Your task to perform on an android device: manage bookmarks in the chrome app Image 0: 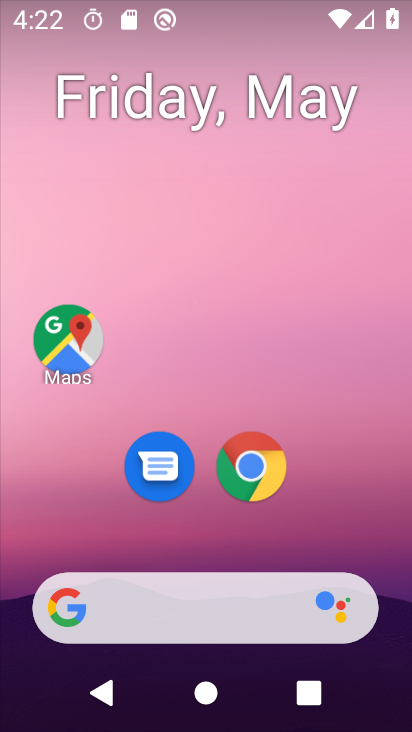
Step 0: drag from (393, 657) to (381, 236)
Your task to perform on an android device: manage bookmarks in the chrome app Image 1: 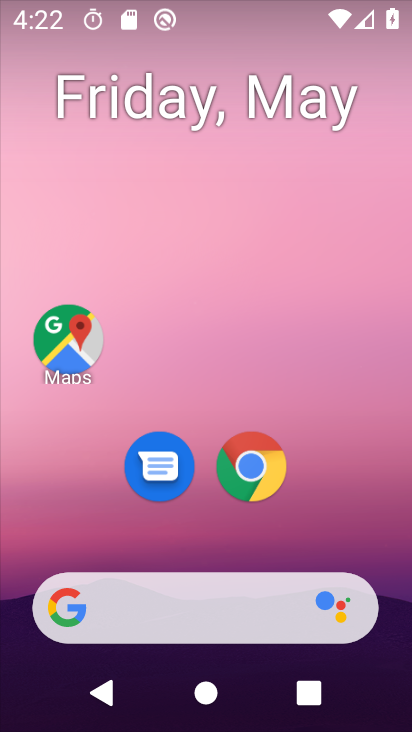
Step 1: click (357, 173)
Your task to perform on an android device: manage bookmarks in the chrome app Image 2: 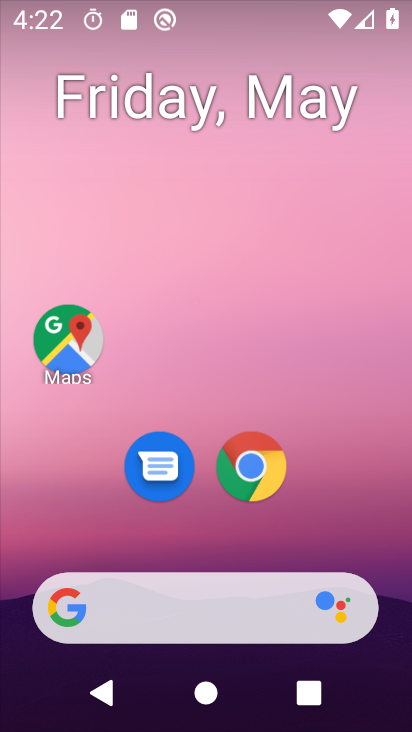
Step 2: click (264, 462)
Your task to perform on an android device: manage bookmarks in the chrome app Image 3: 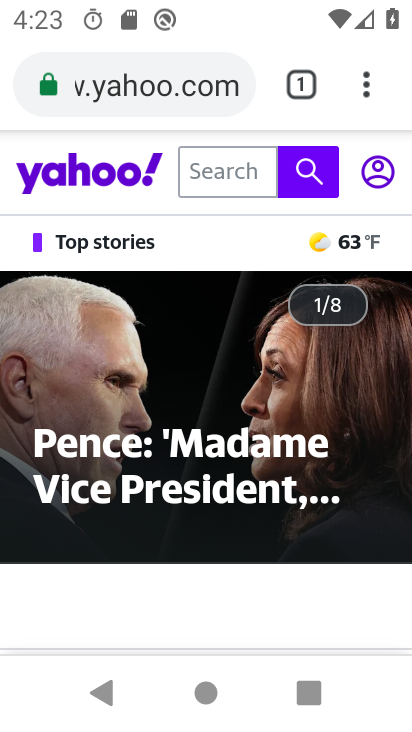
Step 3: click (366, 82)
Your task to perform on an android device: manage bookmarks in the chrome app Image 4: 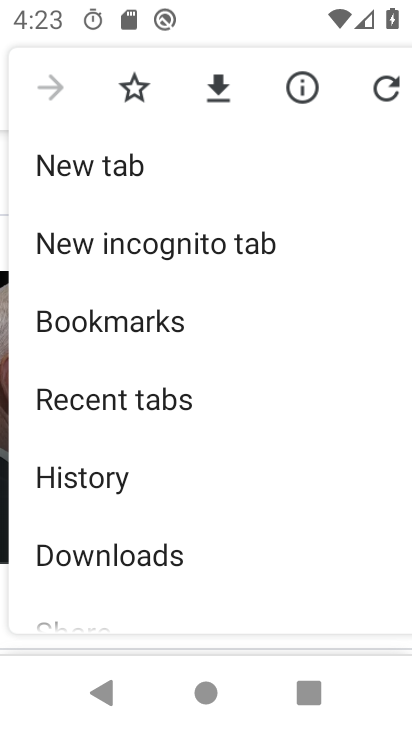
Step 4: click (278, 333)
Your task to perform on an android device: manage bookmarks in the chrome app Image 5: 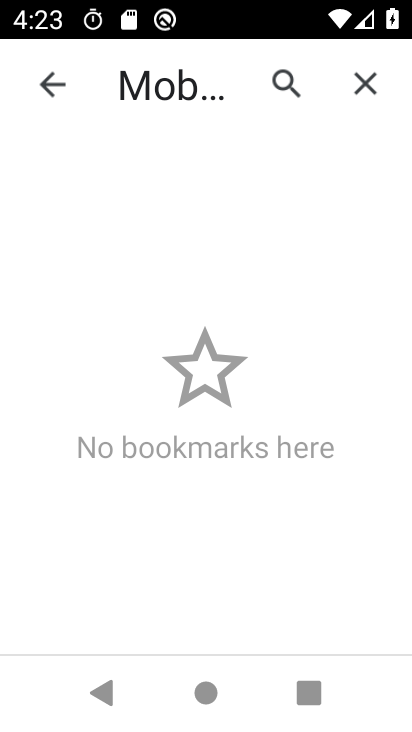
Step 5: click (361, 84)
Your task to perform on an android device: manage bookmarks in the chrome app Image 6: 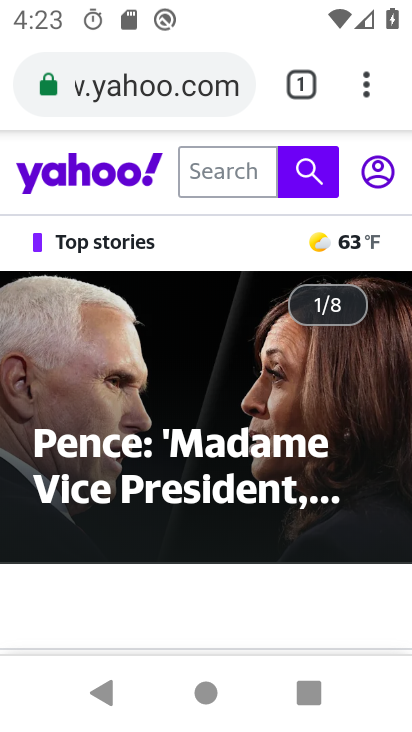
Step 6: click (360, 82)
Your task to perform on an android device: manage bookmarks in the chrome app Image 7: 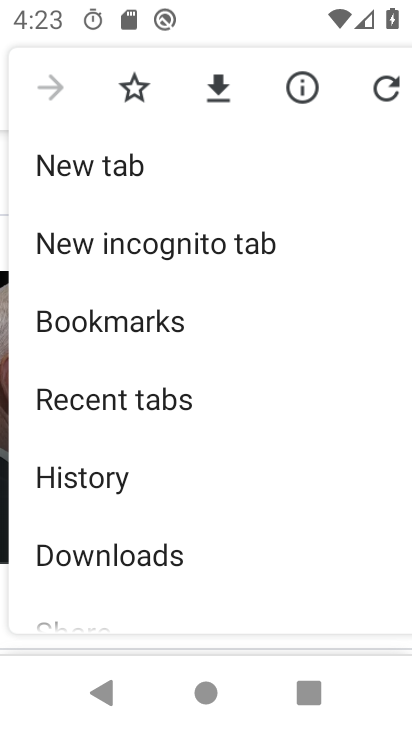
Step 7: click (133, 314)
Your task to perform on an android device: manage bookmarks in the chrome app Image 8: 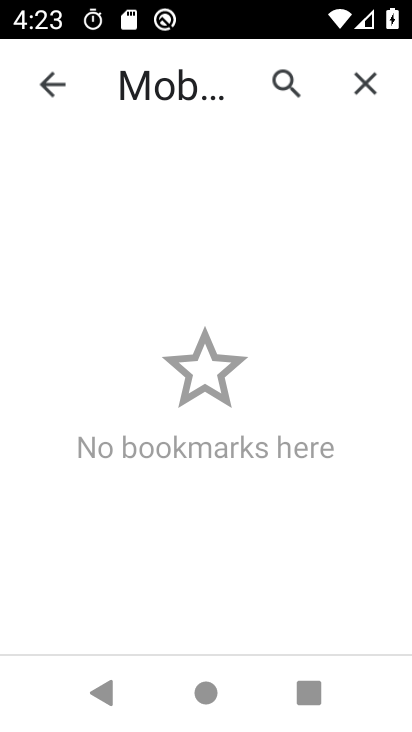
Step 8: click (43, 95)
Your task to perform on an android device: manage bookmarks in the chrome app Image 9: 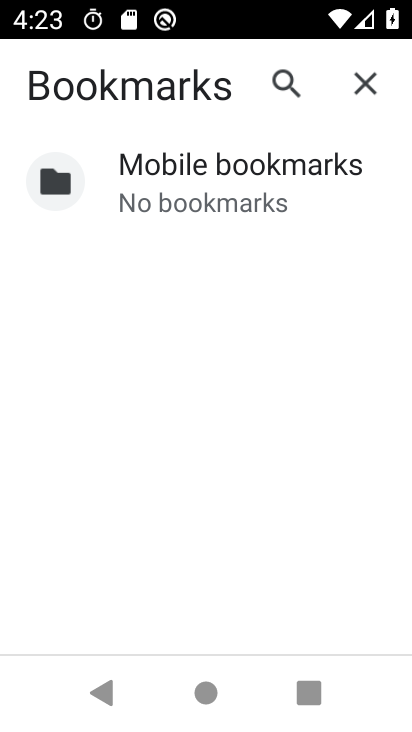
Step 9: click (225, 178)
Your task to perform on an android device: manage bookmarks in the chrome app Image 10: 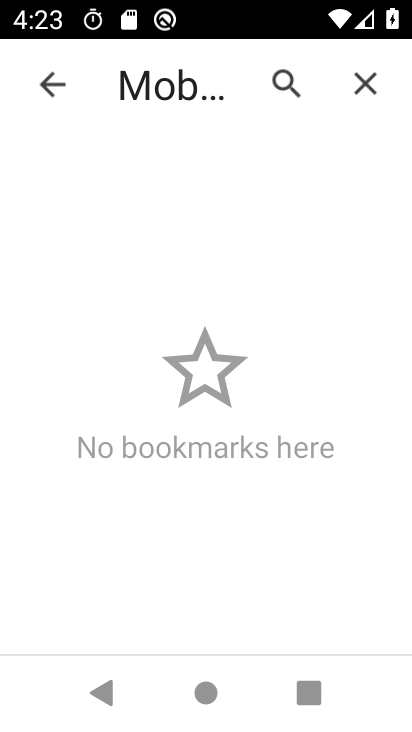
Step 10: task complete